Your task to perform on an android device: turn on location history Image 0: 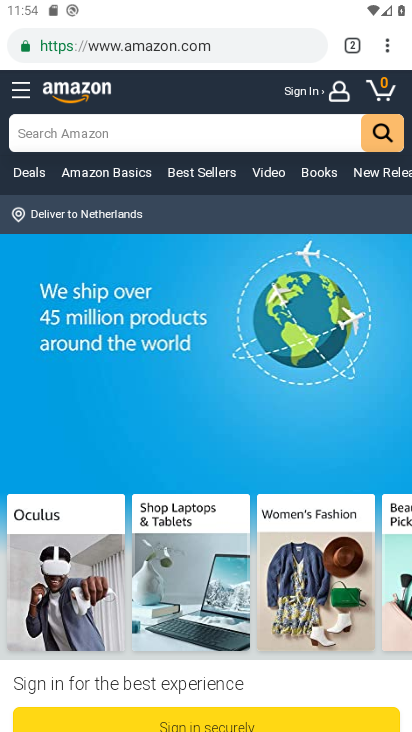
Step 0: press home button
Your task to perform on an android device: turn on location history Image 1: 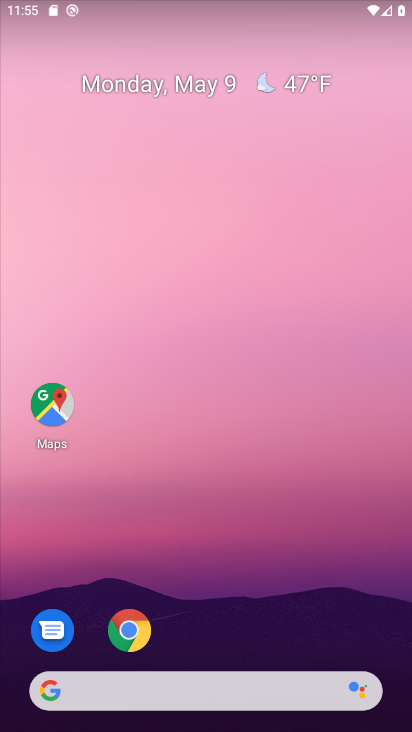
Step 1: drag from (306, 601) to (152, 148)
Your task to perform on an android device: turn on location history Image 2: 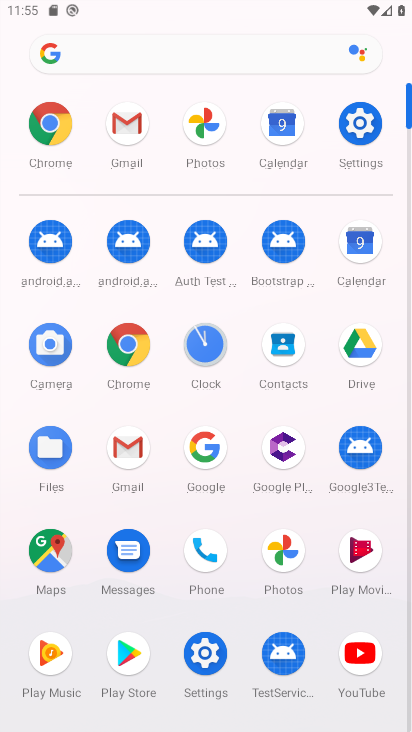
Step 2: click (359, 128)
Your task to perform on an android device: turn on location history Image 3: 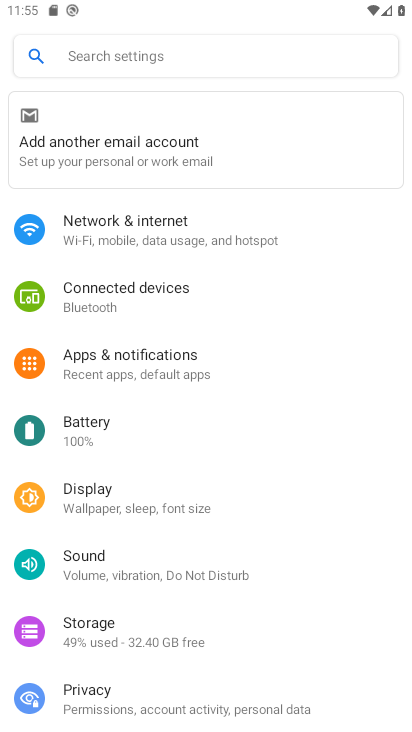
Step 3: drag from (215, 627) to (227, 365)
Your task to perform on an android device: turn on location history Image 4: 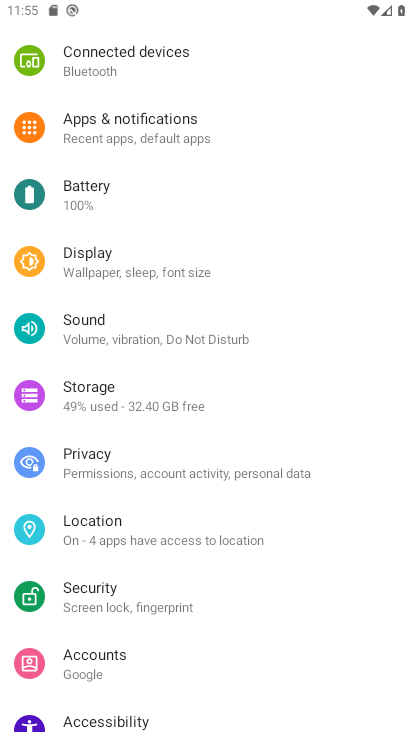
Step 4: click (150, 544)
Your task to perform on an android device: turn on location history Image 5: 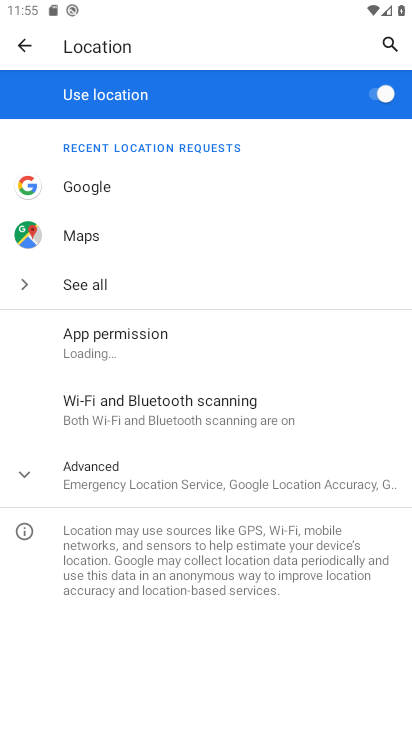
Step 5: click (141, 484)
Your task to perform on an android device: turn on location history Image 6: 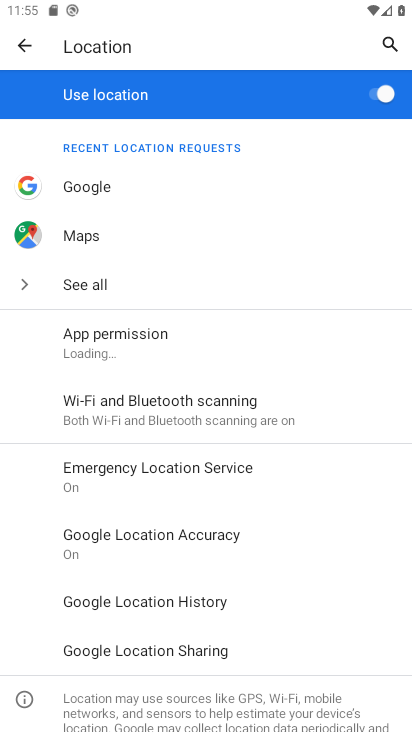
Step 6: click (120, 603)
Your task to perform on an android device: turn on location history Image 7: 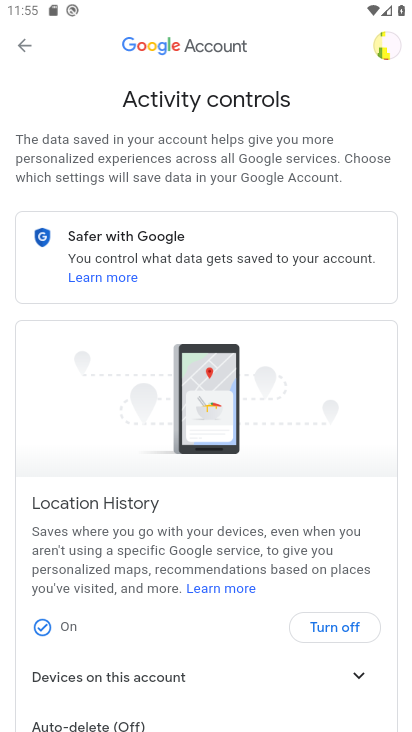
Step 7: task complete